Your task to perform on an android device: Go to settings Image 0: 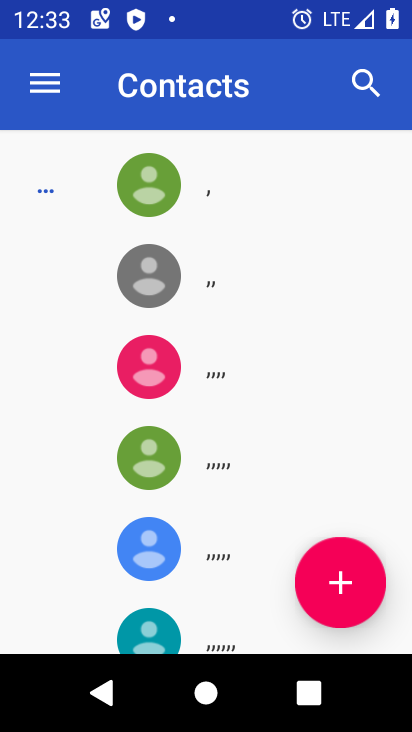
Step 0: press home button
Your task to perform on an android device: Go to settings Image 1: 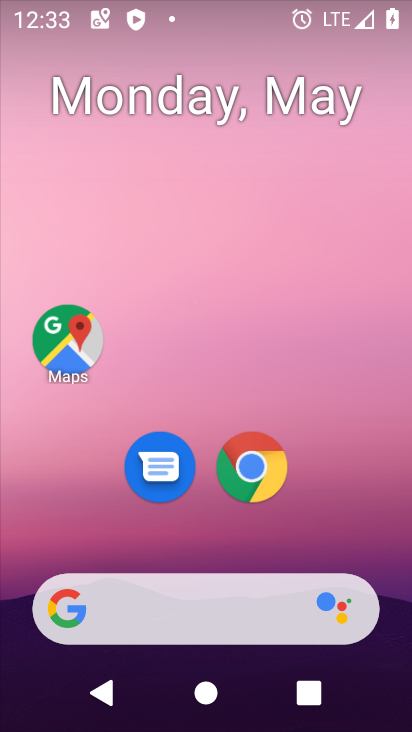
Step 1: drag from (362, 556) to (372, 8)
Your task to perform on an android device: Go to settings Image 2: 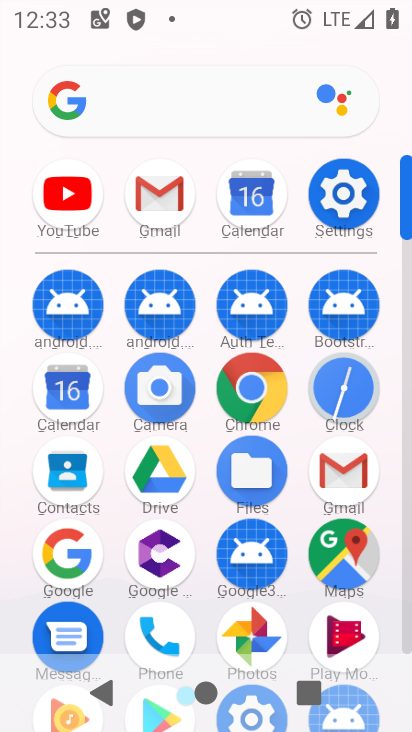
Step 2: click (343, 191)
Your task to perform on an android device: Go to settings Image 3: 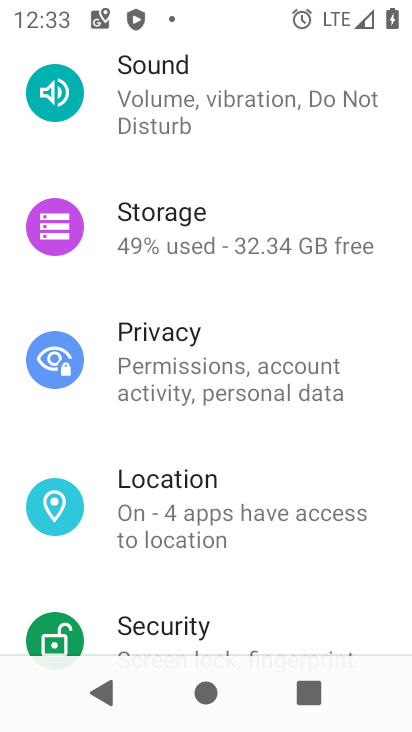
Step 3: task complete